Your task to perform on an android device: Open my contact list Image 0: 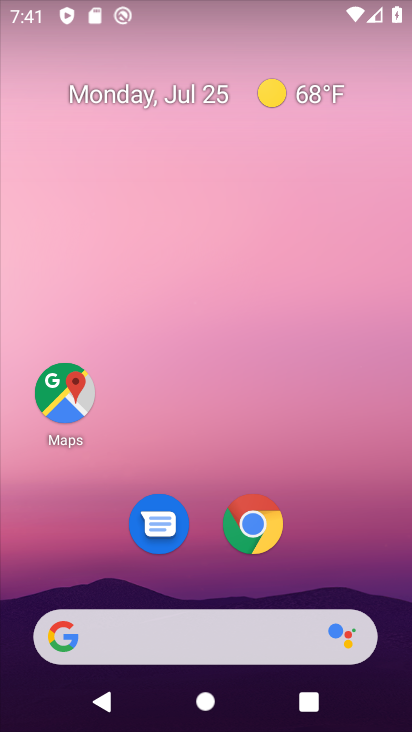
Step 0: drag from (329, 534) to (307, 3)
Your task to perform on an android device: Open my contact list Image 1: 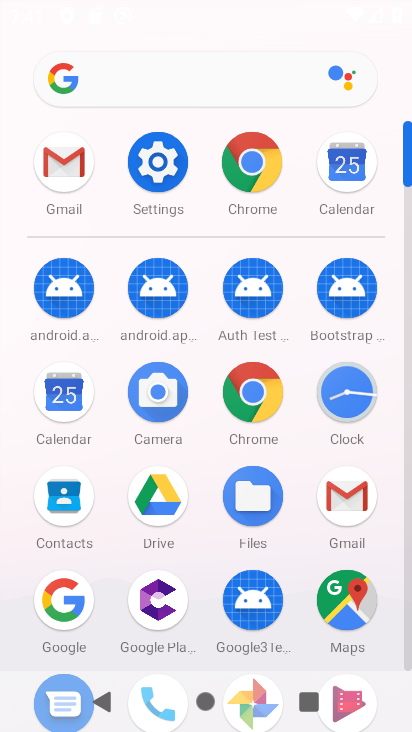
Step 1: click (62, 491)
Your task to perform on an android device: Open my contact list Image 2: 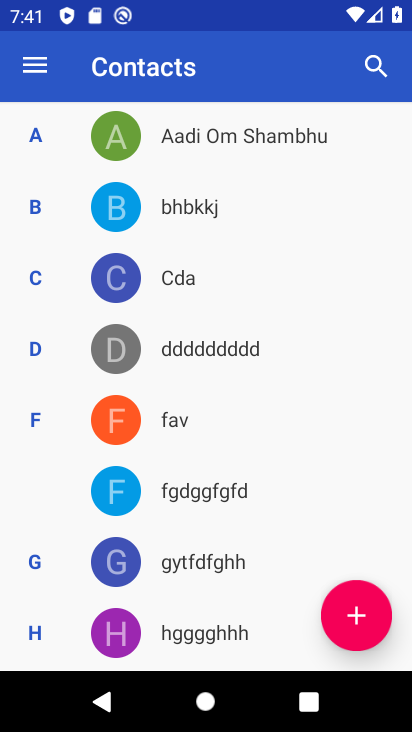
Step 2: task complete